Your task to perform on an android device: Open calendar and show me the second week of next month Image 0: 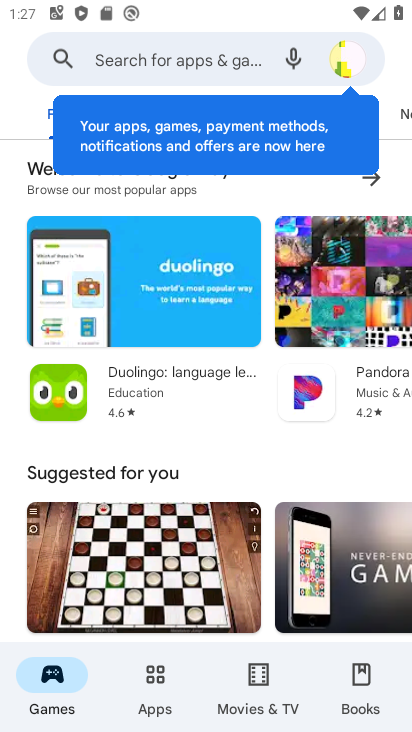
Step 0: press back button
Your task to perform on an android device: Open calendar and show me the second week of next month Image 1: 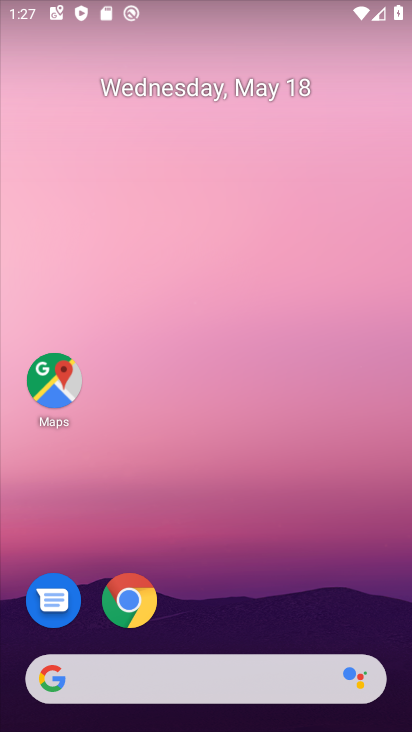
Step 1: drag from (238, 610) to (202, 107)
Your task to perform on an android device: Open calendar and show me the second week of next month Image 2: 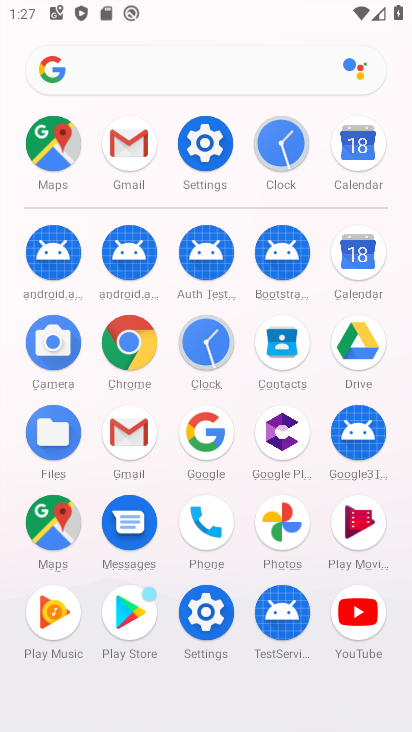
Step 2: click (356, 148)
Your task to perform on an android device: Open calendar and show me the second week of next month Image 3: 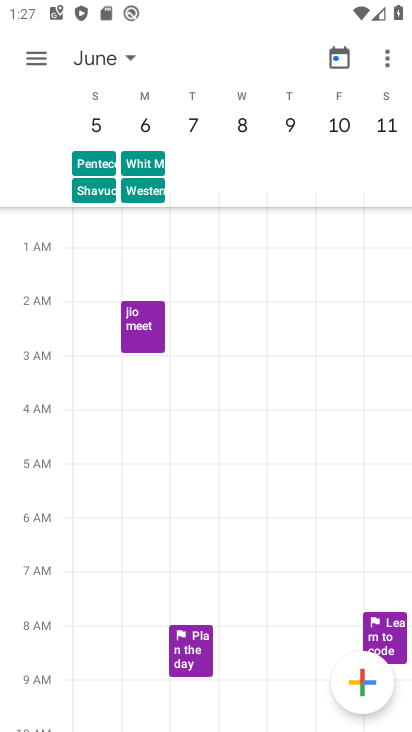
Step 3: click (342, 59)
Your task to perform on an android device: Open calendar and show me the second week of next month Image 4: 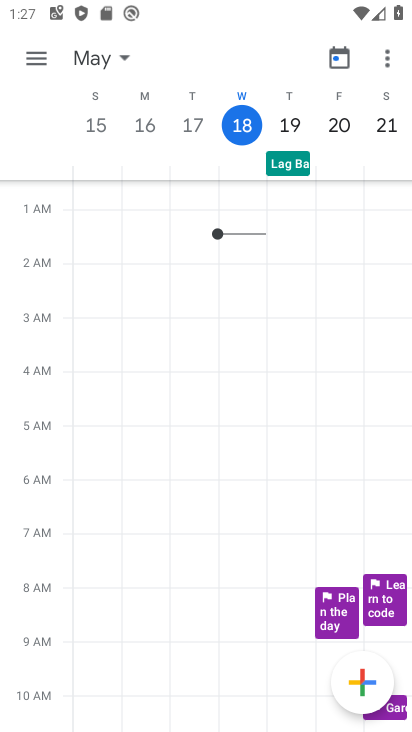
Step 4: click (125, 59)
Your task to perform on an android device: Open calendar and show me the second week of next month Image 5: 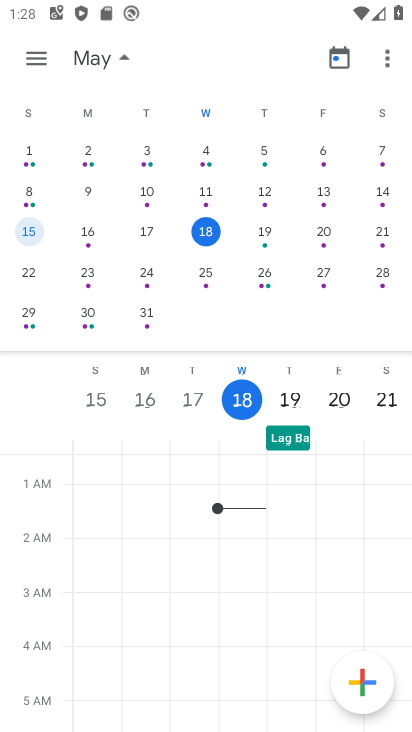
Step 5: drag from (313, 240) to (13, 256)
Your task to perform on an android device: Open calendar and show me the second week of next month Image 6: 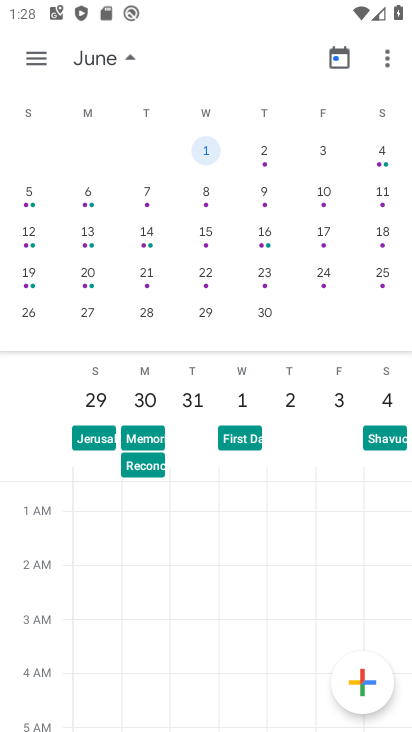
Step 6: click (89, 227)
Your task to perform on an android device: Open calendar and show me the second week of next month Image 7: 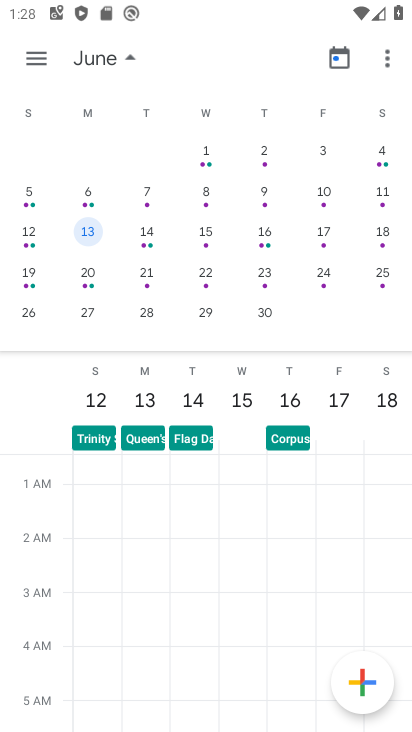
Step 7: click (43, 61)
Your task to perform on an android device: Open calendar and show me the second week of next month Image 8: 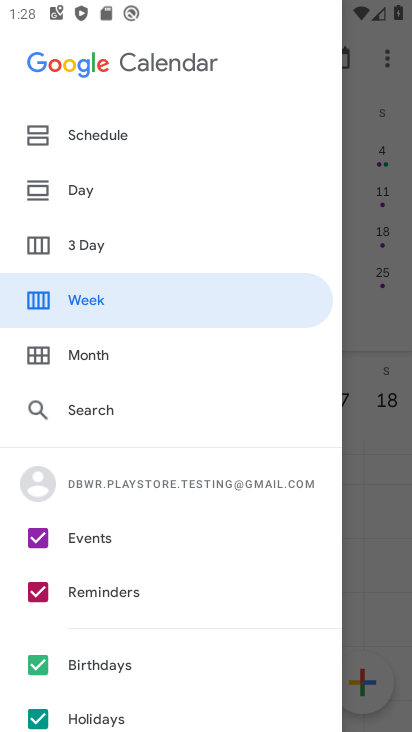
Step 8: click (104, 312)
Your task to perform on an android device: Open calendar and show me the second week of next month Image 9: 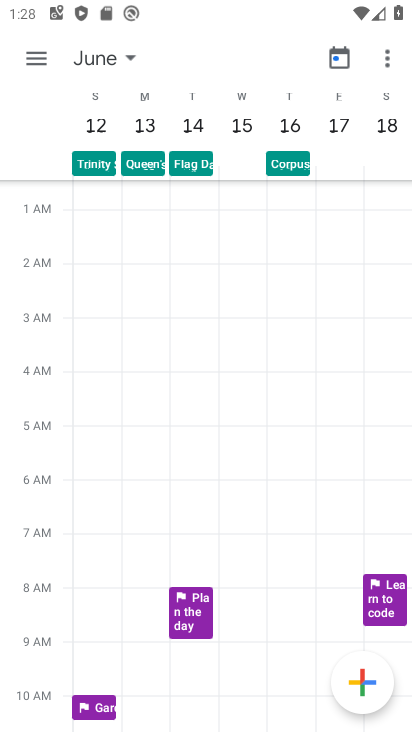
Step 9: task complete